Your task to perform on an android device: Clear all items from cart on walmart.com. Add usb-b to the cart on walmart.com, then select checkout. Image 0: 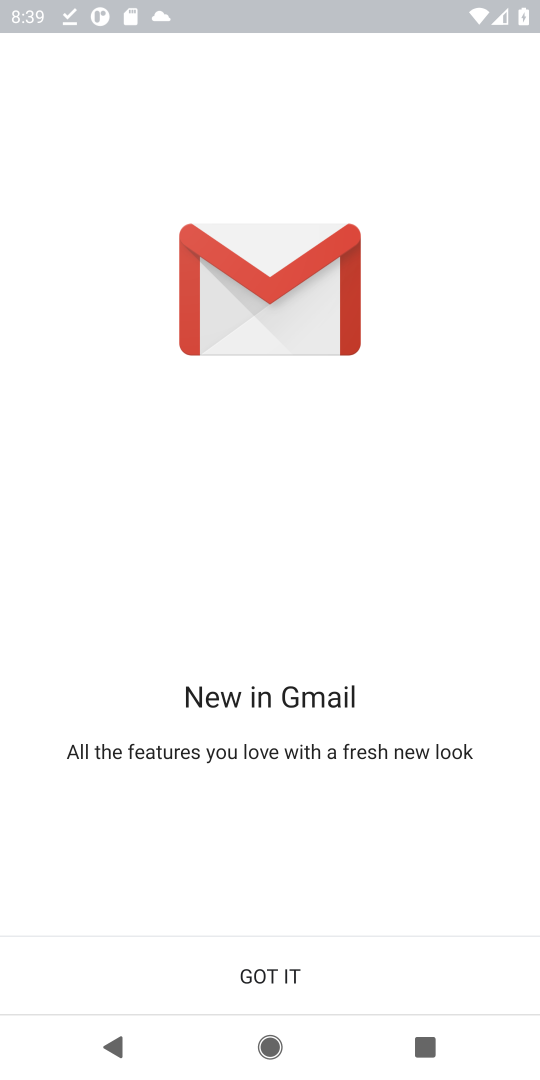
Step 0: press home button
Your task to perform on an android device: Clear all items from cart on walmart.com. Add usb-b to the cart on walmart.com, then select checkout. Image 1: 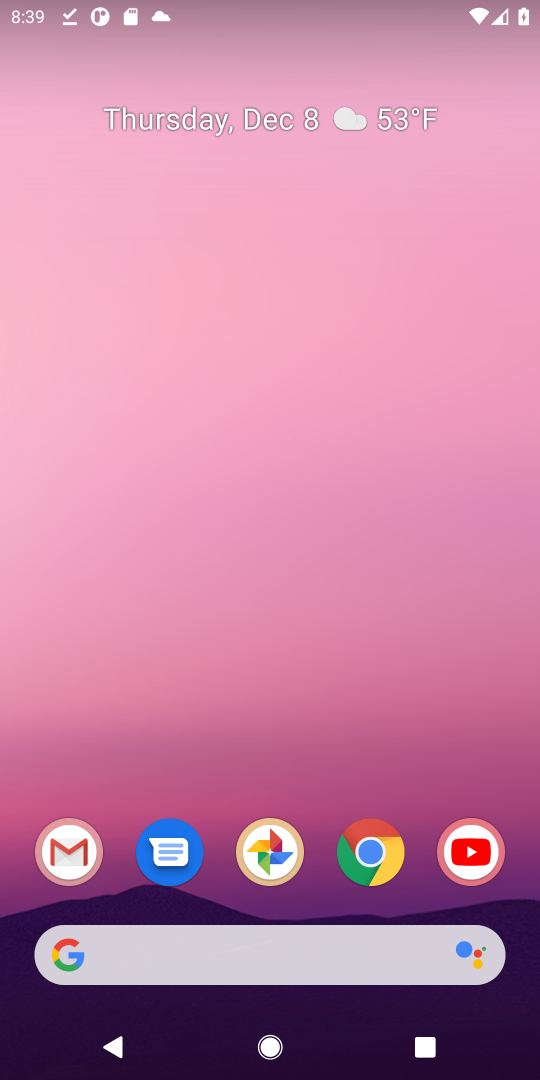
Step 1: click (267, 952)
Your task to perform on an android device: Clear all items from cart on walmart.com. Add usb-b to the cart on walmart.com, then select checkout. Image 2: 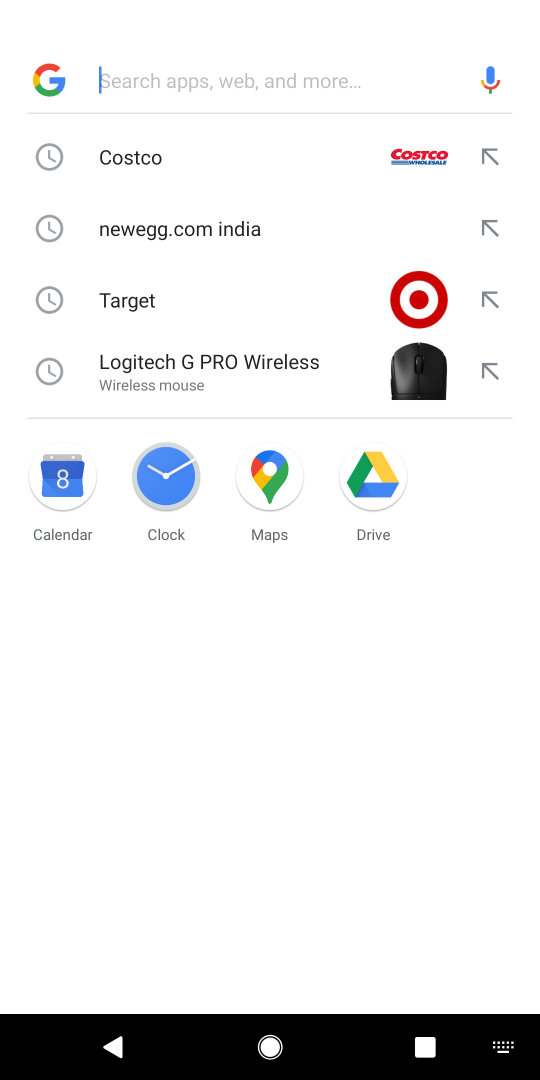
Step 2: type "walmart"
Your task to perform on an android device: Clear all items from cart on walmart.com. Add usb-b to the cart on walmart.com, then select checkout. Image 3: 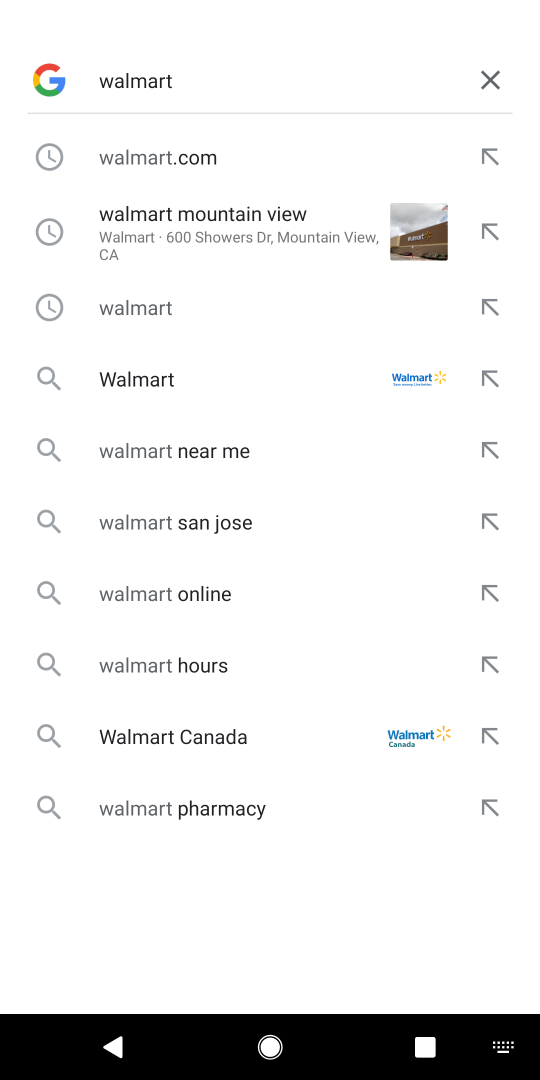
Step 3: click (128, 136)
Your task to perform on an android device: Clear all items from cart on walmart.com. Add usb-b to the cart on walmart.com, then select checkout. Image 4: 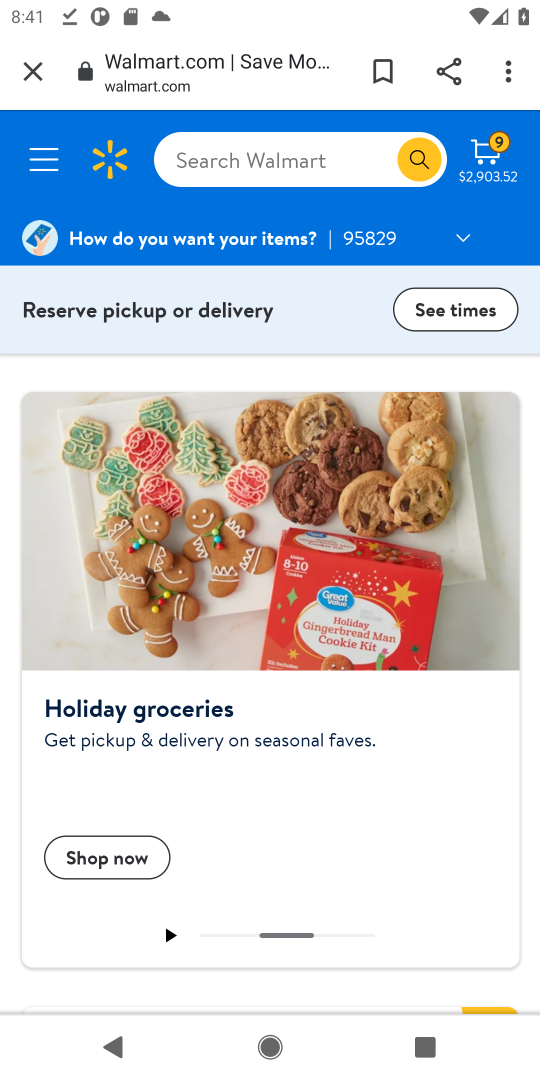
Step 4: click (281, 176)
Your task to perform on an android device: Clear all items from cart on walmart.com. Add usb-b to the cart on walmart.com, then select checkout. Image 5: 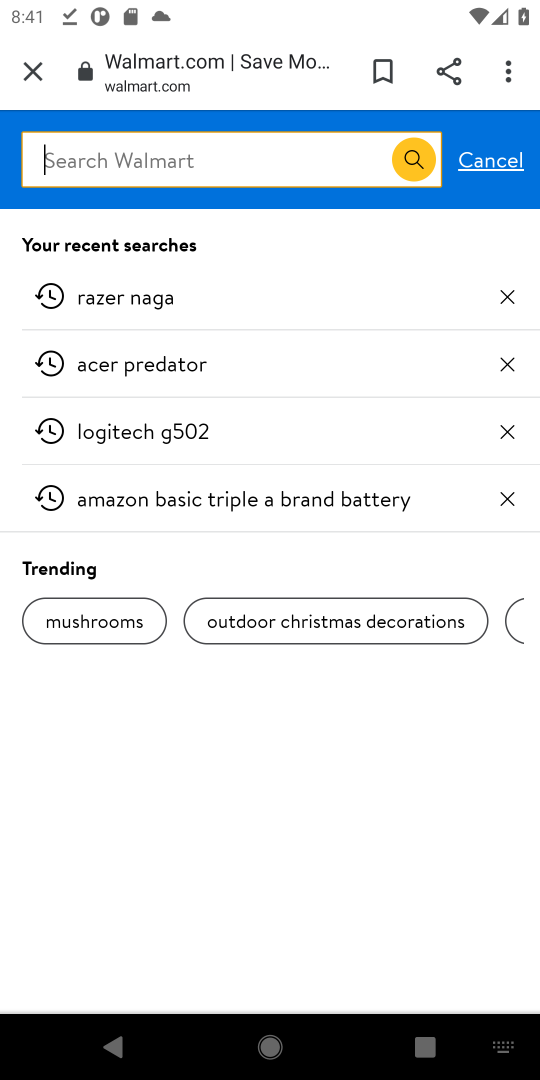
Step 5: type "usb-b"
Your task to perform on an android device: Clear all items from cart on walmart.com. Add usb-b to the cart on walmart.com, then select checkout. Image 6: 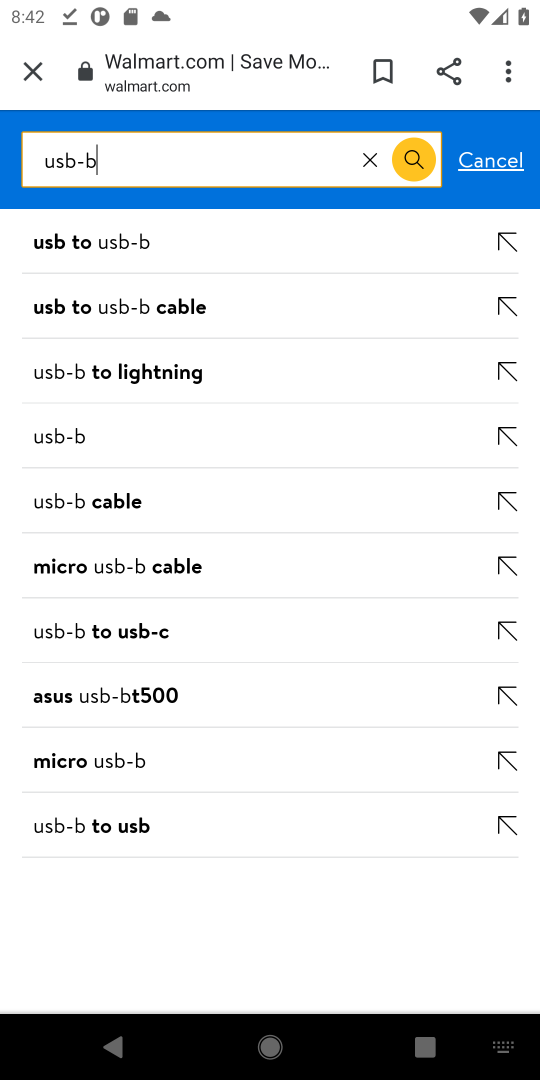
Step 6: click (116, 248)
Your task to perform on an android device: Clear all items from cart on walmart.com. Add usb-b to the cart on walmart.com, then select checkout. Image 7: 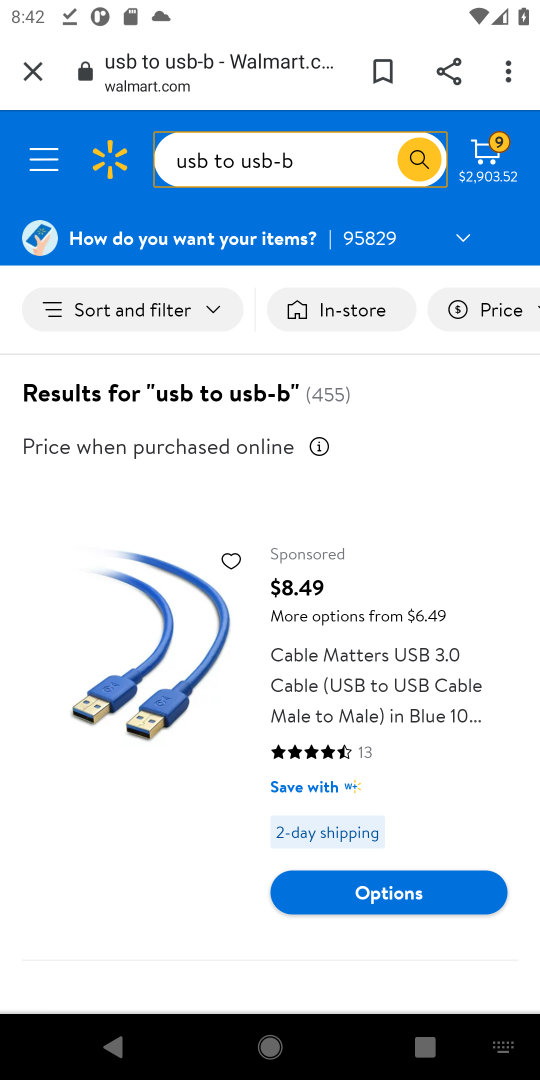
Step 7: click (344, 893)
Your task to perform on an android device: Clear all items from cart on walmart.com. Add usb-b to the cart on walmart.com, then select checkout. Image 8: 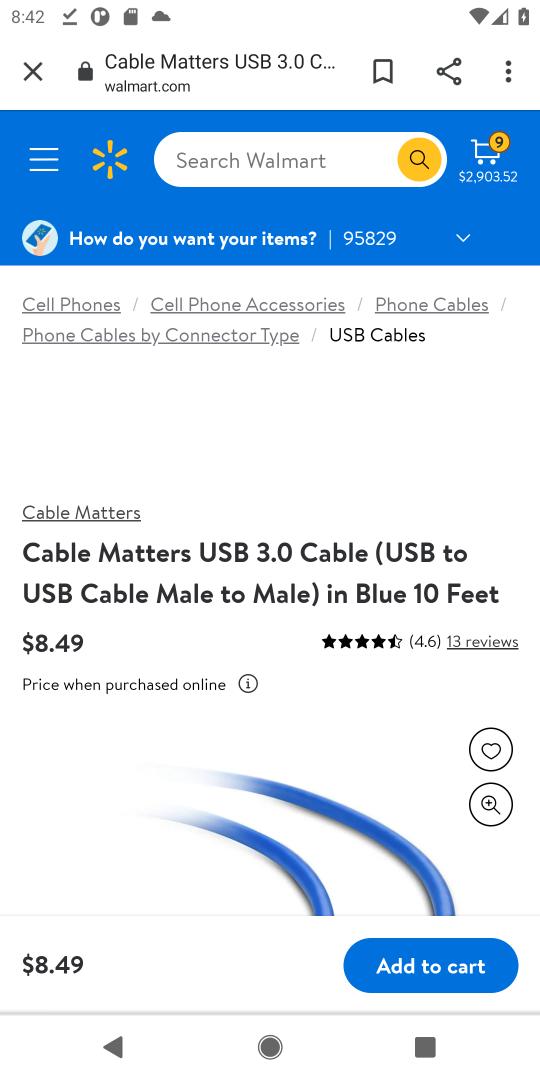
Step 8: click (422, 964)
Your task to perform on an android device: Clear all items from cart on walmart.com. Add usb-b to the cart on walmart.com, then select checkout. Image 9: 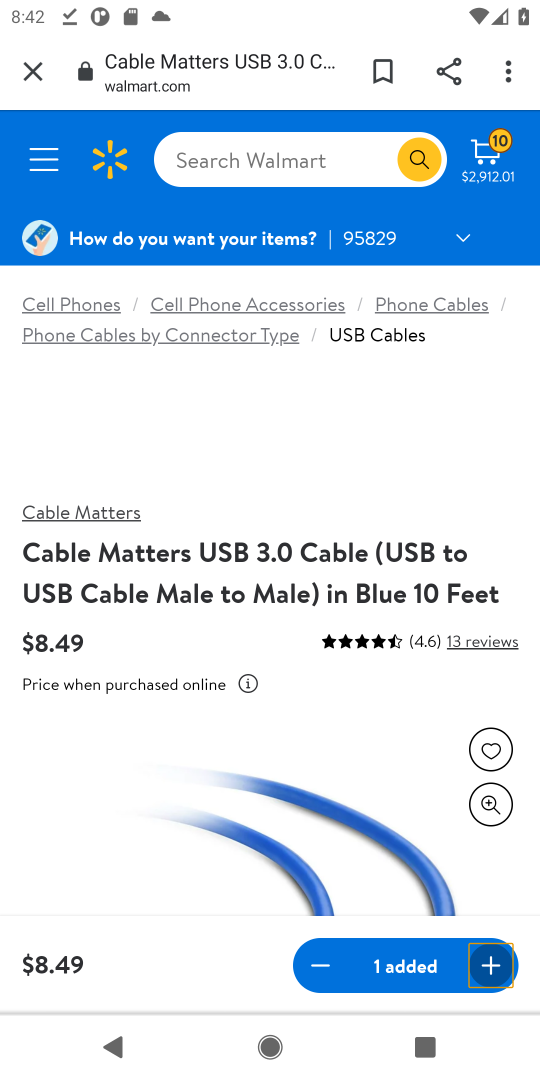
Step 9: task complete